Your task to perform on an android device: Do I have any events tomorrow? Image 0: 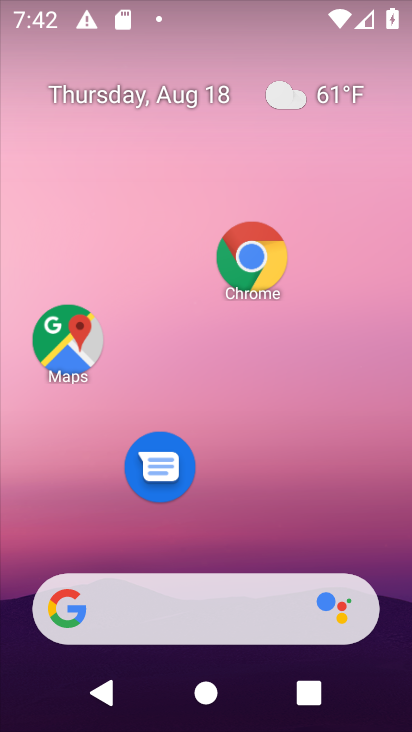
Step 0: drag from (349, 474) to (340, 188)
Your task to perform on an android device: Do I have any events tomorrow? Image 1: 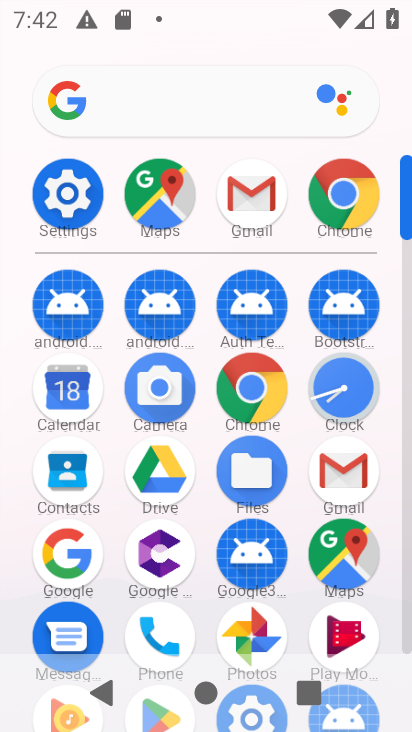
Step 1: task complete